Your task to perform on an android device: turn on notifications settings in the gmail app Image 0: 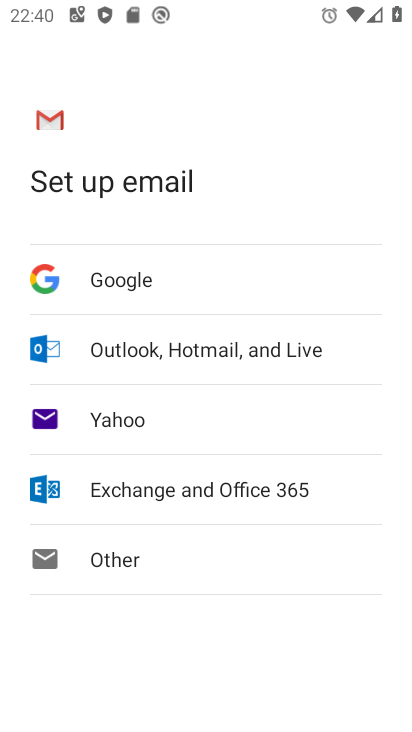
Step 0: press home button
Your task to perform on an android device: turn on notifications settings in the gmail app Image 1: 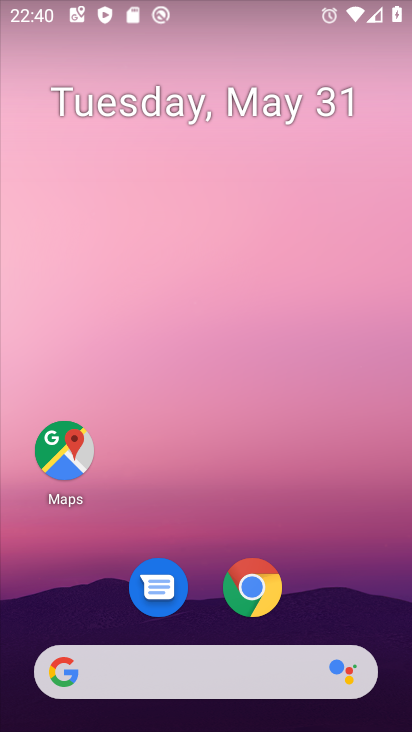
Step 1: drag from (362, 609) to (366, 252)
Your task to perform on an android device: turn on notifications settings in the gmail app Image 2: 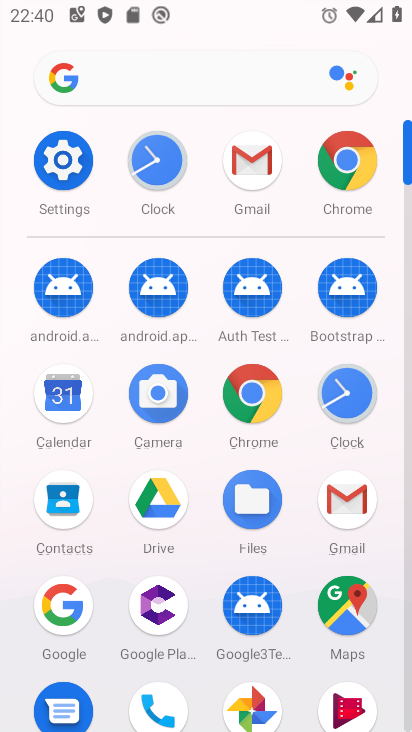
Step 2: click (345, 519)
Your task to perform on an android device: turn on notifications settings in the gmail app Image 3: 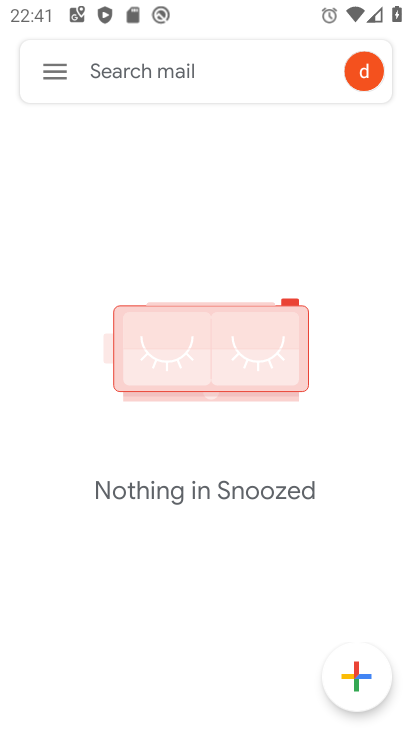
Step 3: click (53, 83)
Your task to perform on an android device: turn on notifications settings in the gmail app Image 4: 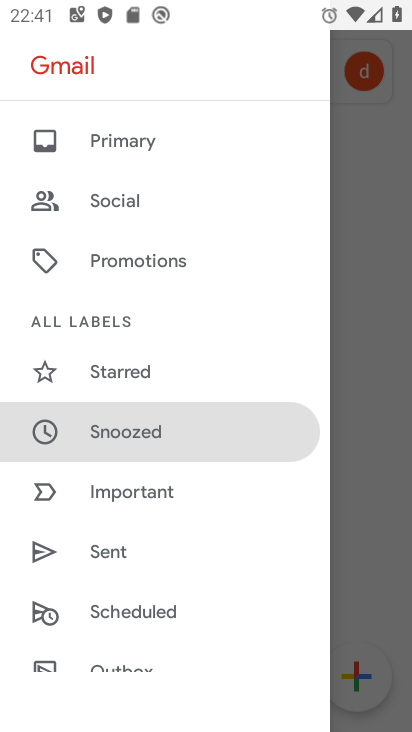
Step 4: drag from (244, 240) to (252, 371)
Your task to perform on an android device: turn on notifications settings in the gmail app Image 5: 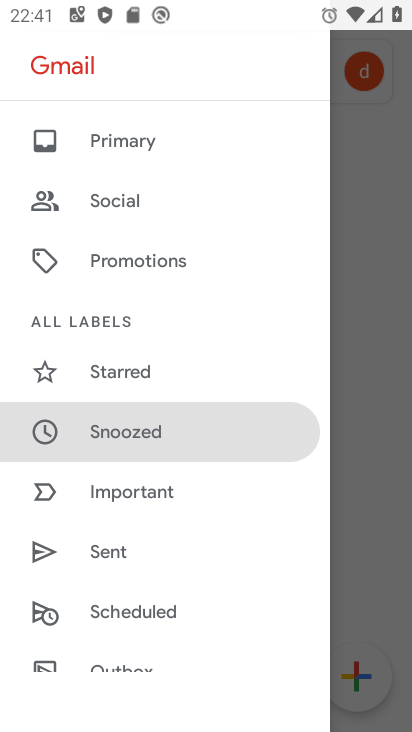
Step 5: drag from (272, 488) to (285, 324)
Your task to perform on an android device: turn on notifications settings in the gmail app Image 6: 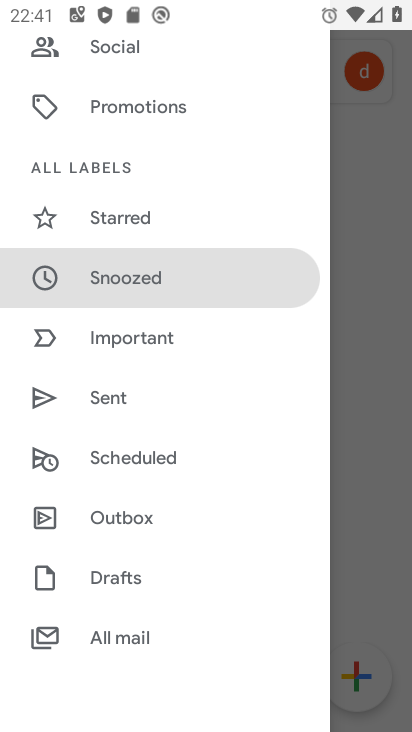
Step 6: drag from (257, 493) to (255, 396)
Your task to perform on an android device: turn on notifications settings in the gmail app Image 7: 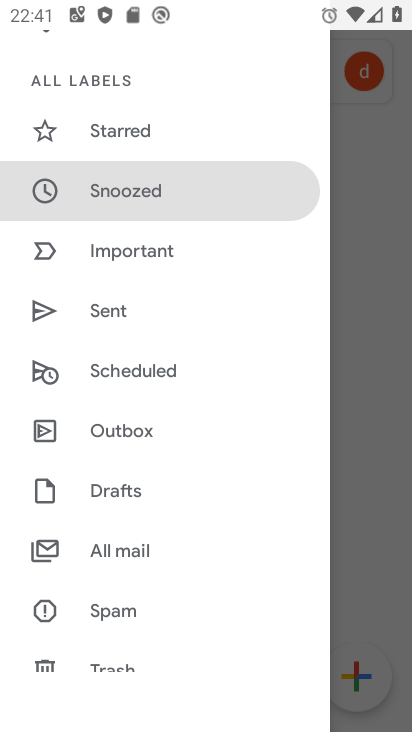
Step 7: drag from (225, 540) to (234, 372)
Your task to perform on an android device: turn on notifications settings in the gmail app Image 8: 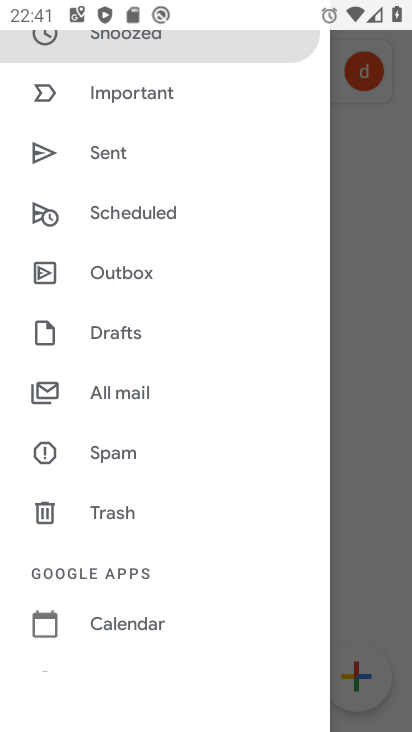
Step 8: drag from (222, 520) to (224, 417)
Your task to perform on an android device: turn on notifications settings in the gmail app Image 9: 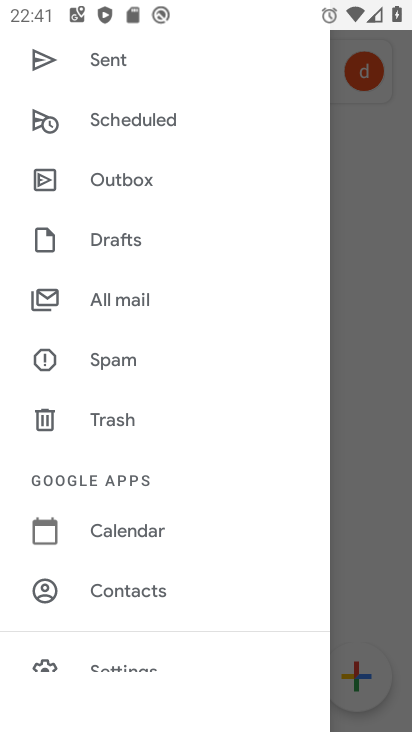
Step 9: drag from (224, 527) to (231, 400)
Your task to perform on an android device: turn on notifications settings in the gmail app Image 10: 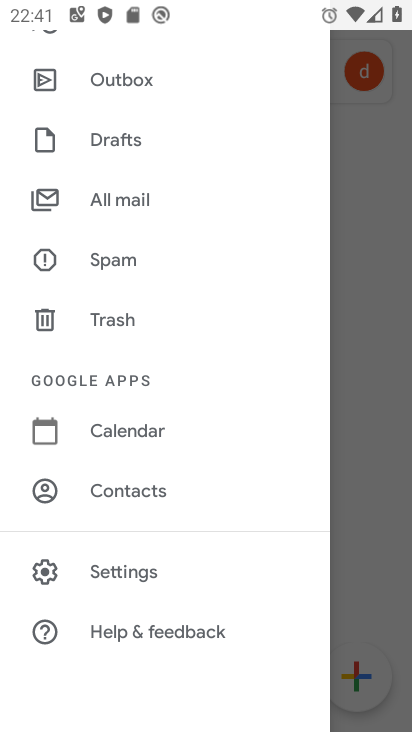
Step 10: click (170, 573)
Your task to perform on an android device: turn on notifications settings in the gmail app Image 11: 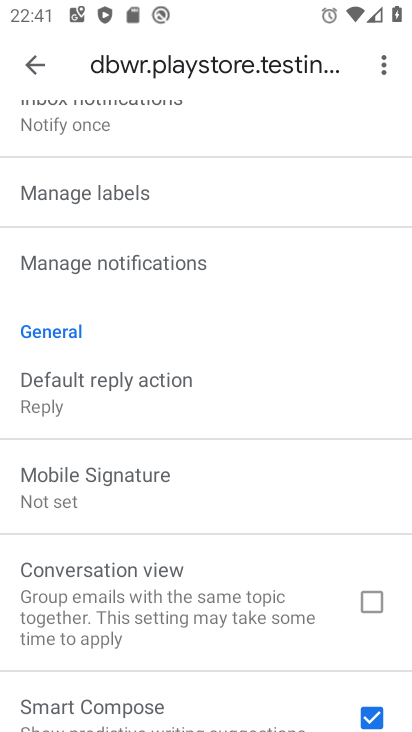
Step 11: drag from (263, 272) to (269, 470)
Your task to perform on an android device: turn on notifications settings in the gmail app Image 12: 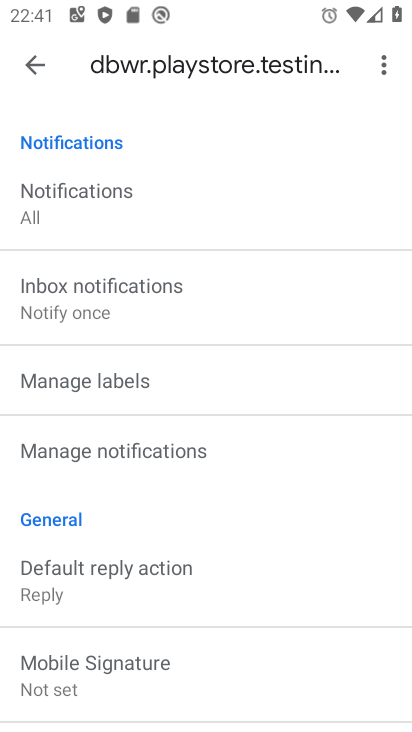
Step 12: click (211, 458)
Your task to perform on an android device: turn on notifications settings in the gmail app Image 13: 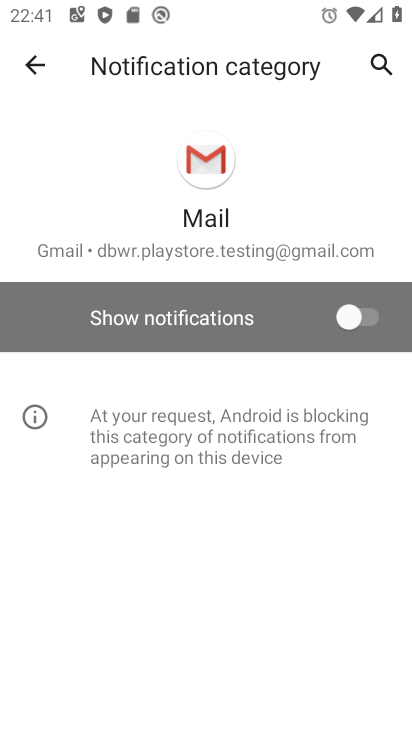
Step 13: click (368, 319)
Your task to perform on an android device: turn on notifications settings in the gmail app Image 14: 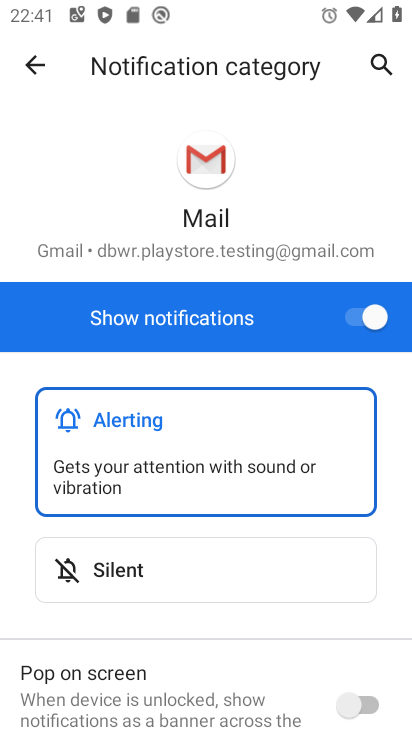
Step 14: task complete